Your task to perform on an android device: open app "PlayWell" Image 0: 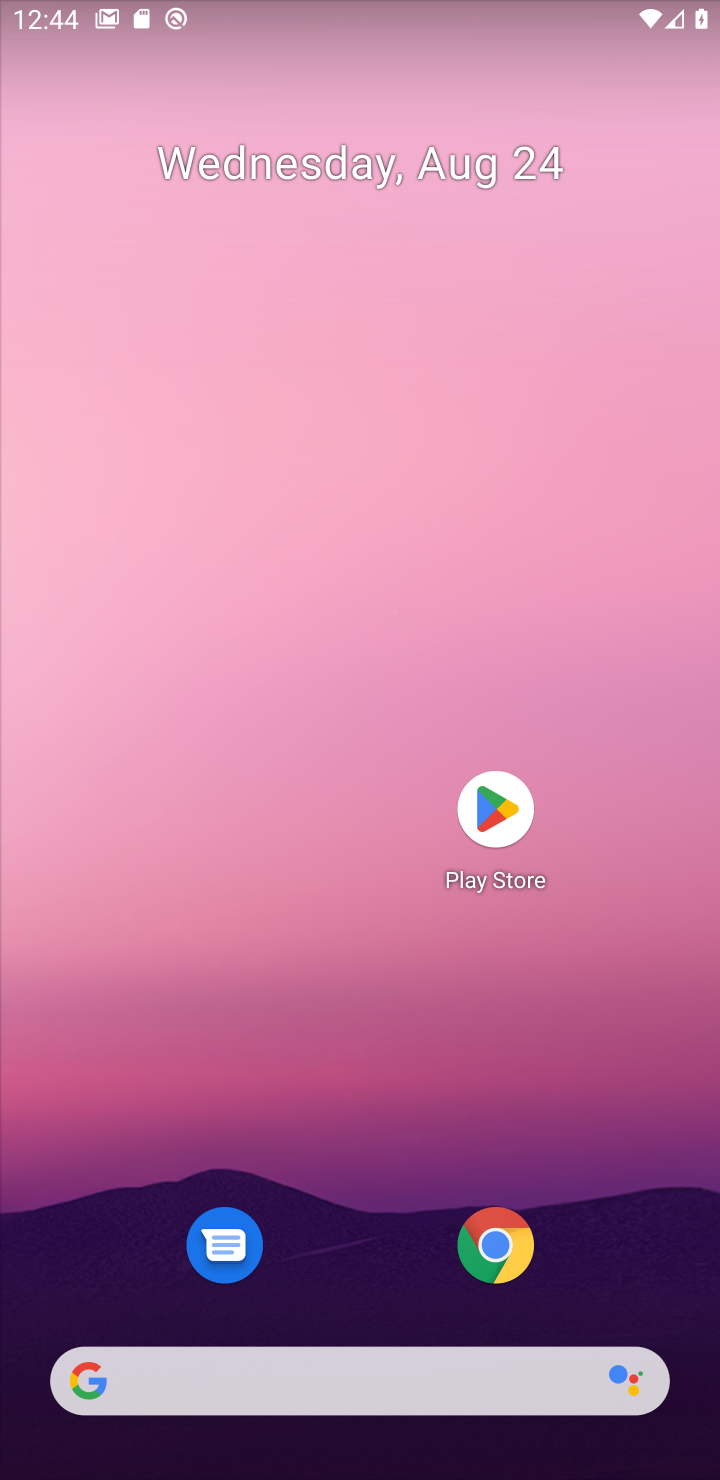
Step 0: click (489, 816)
Your task to perform on an android device: open app "PlayWell" Image 1: 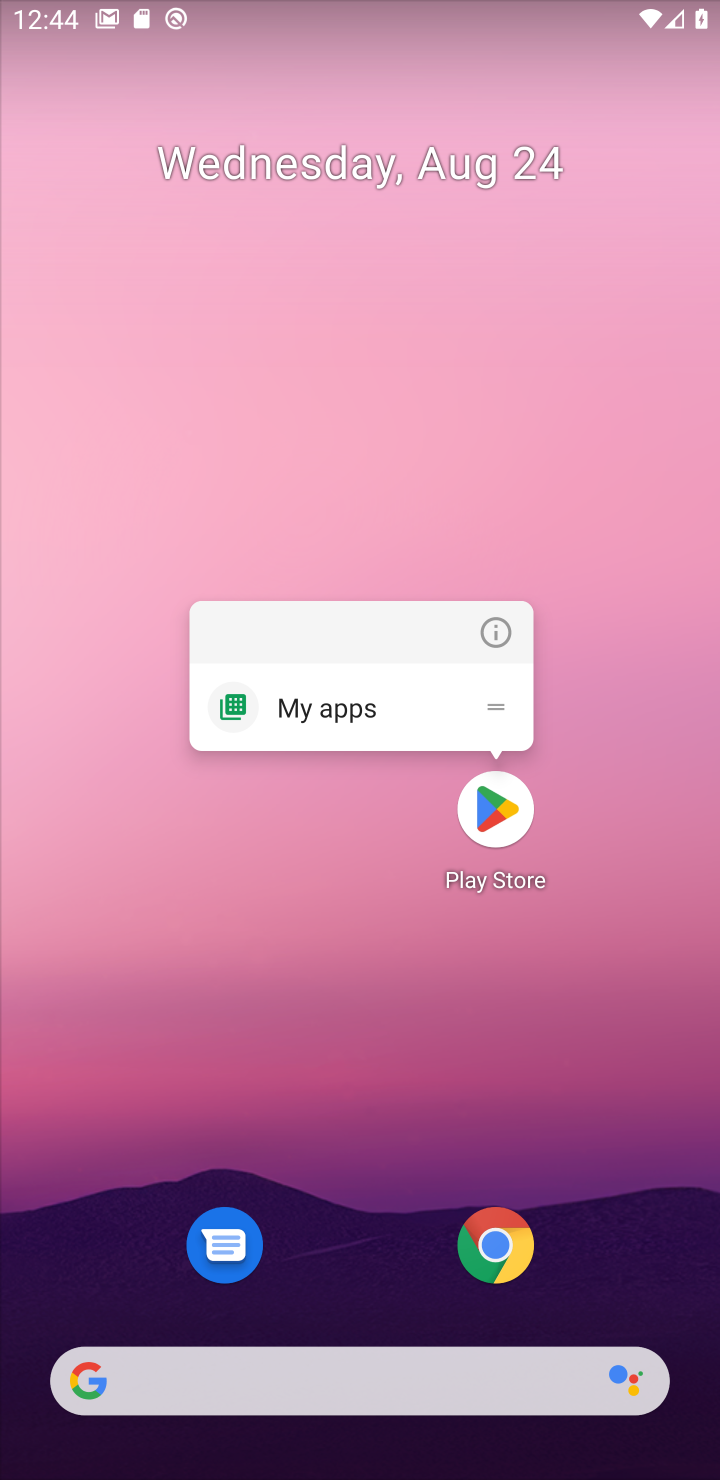
Step 1: click (506, 818)
Your task to perform on an android device: open app "PlayWell" Image 2: 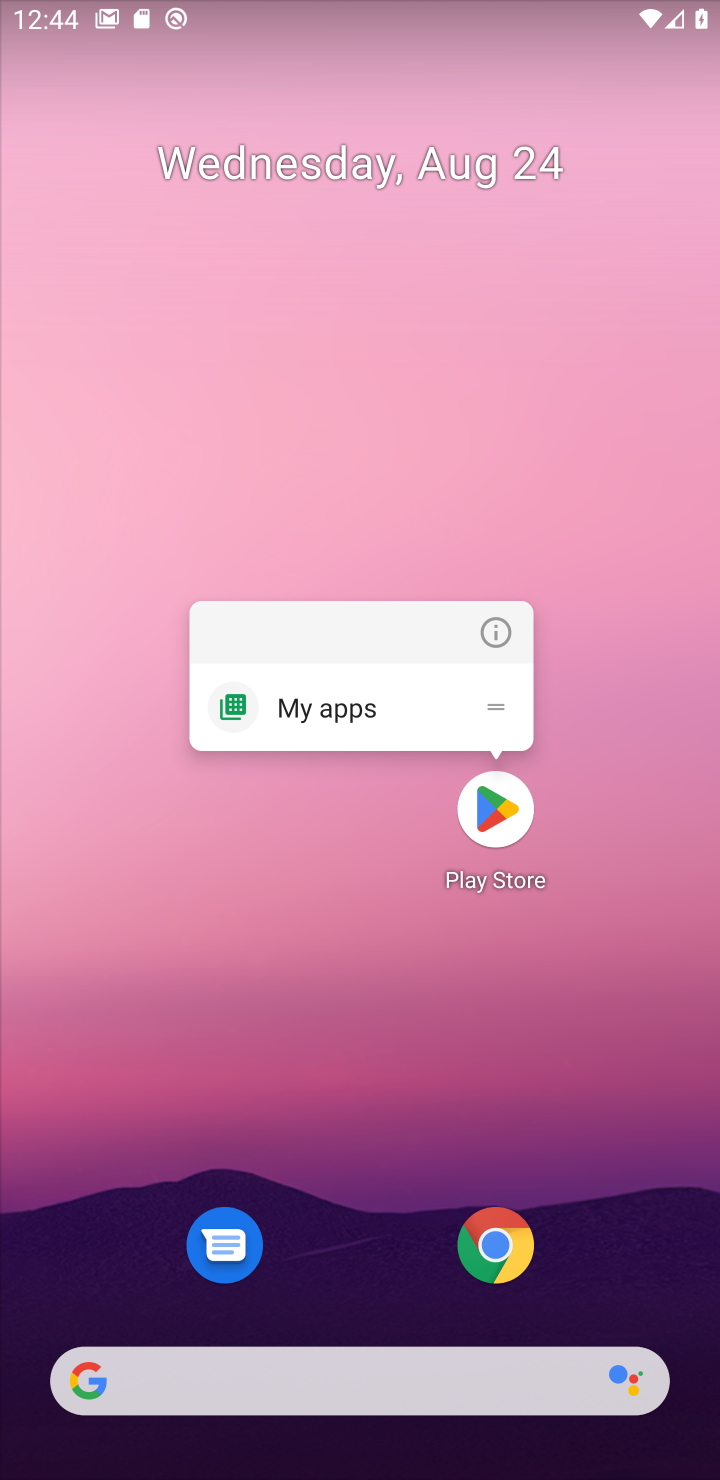
Step 2: click (508, 827)
Your task to perform on an android device: open app "PlayWell" Image 3: 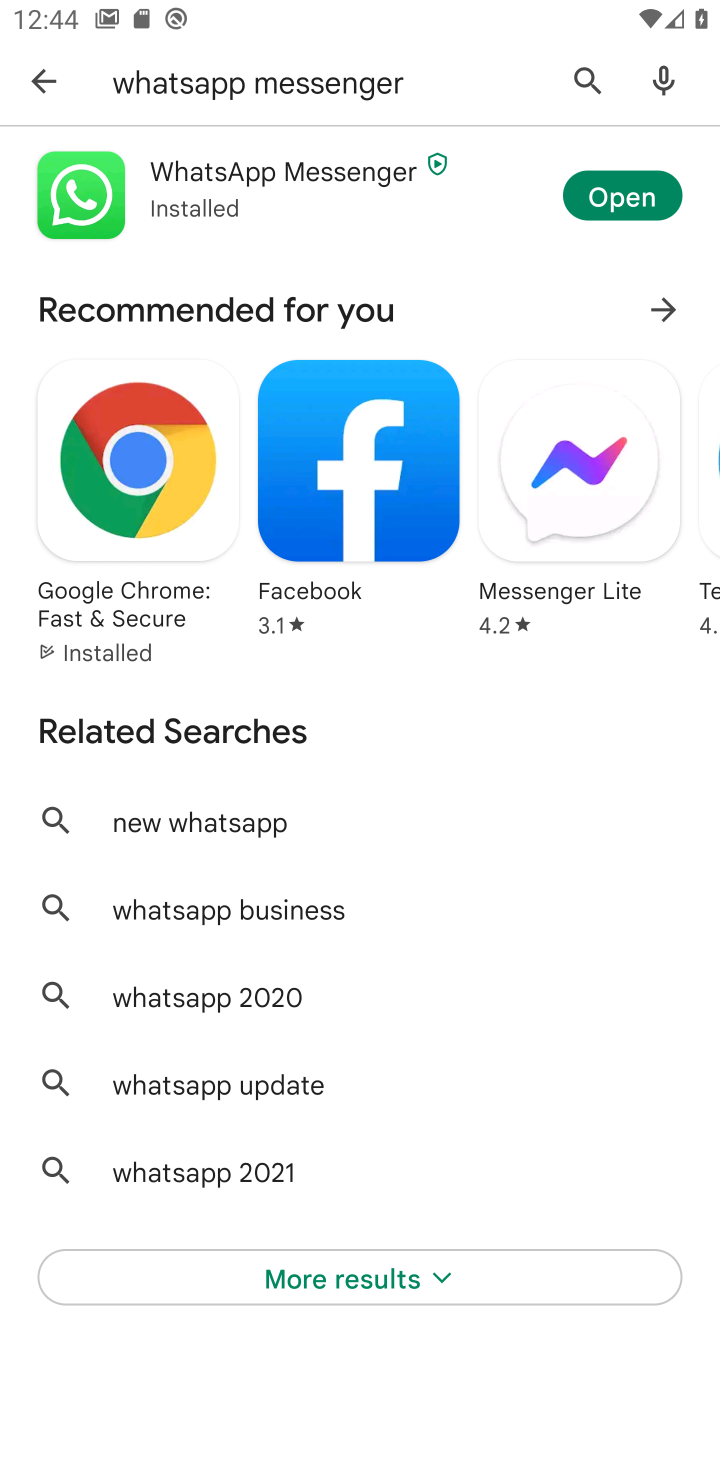
Step 3: click (583, 77)
Your task to perform on an android device: open app "PlayWell" Image 4: 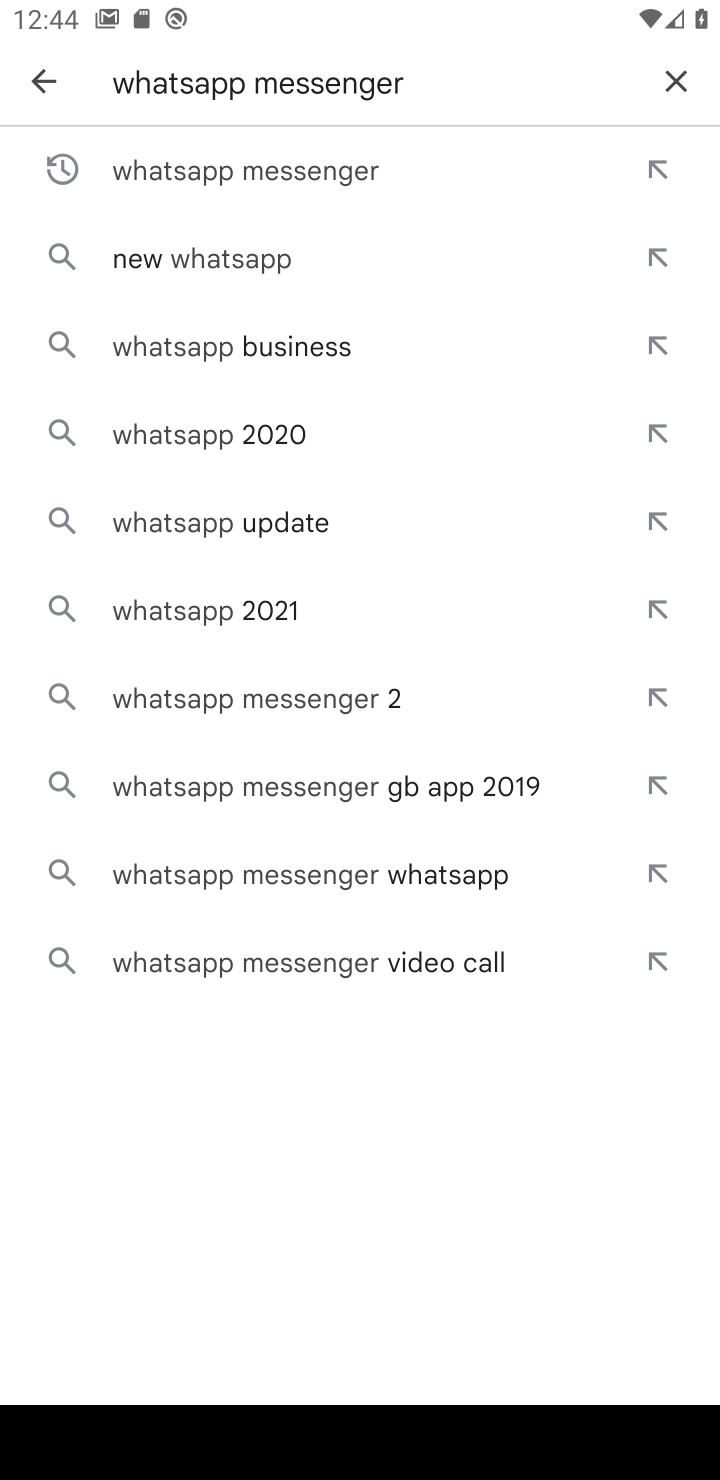
Step 4: click (669, 83)
Your task to perform on an android device: open app "PlayWell" Image 5: 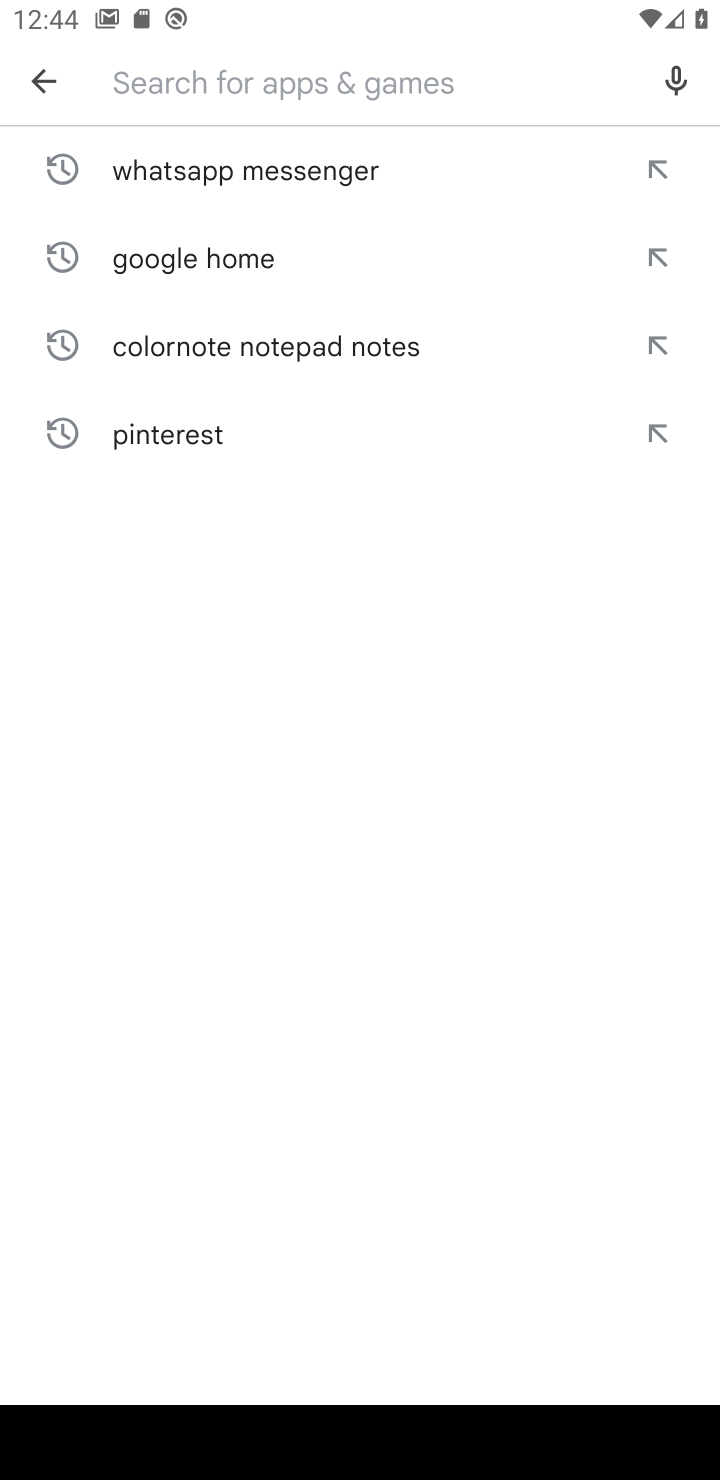
Step 5: type "PlayWell"
Your task to perform on an android device: open app "PlayWell" Image 6: 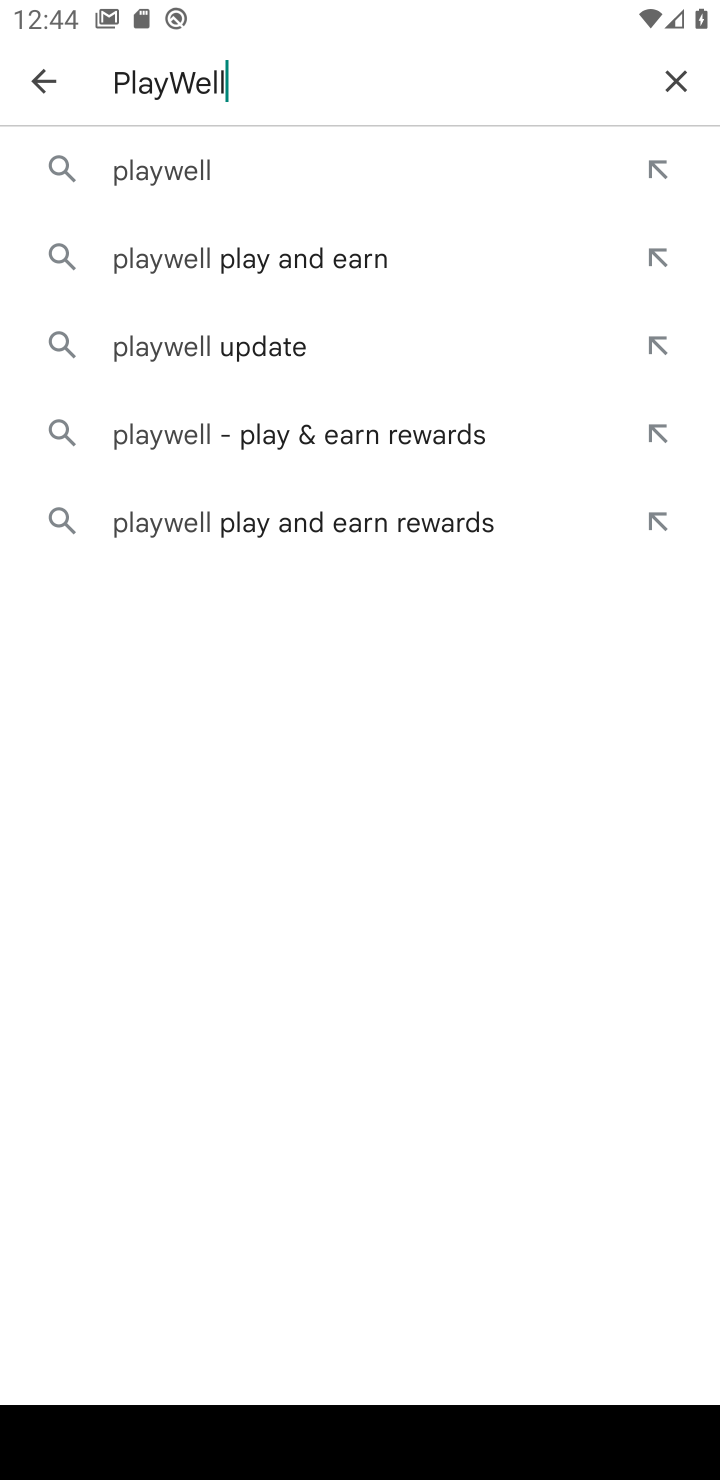
Step 6: click (171, 148)
Your task to perform on an android device: open app "PlayWell" Image 7: 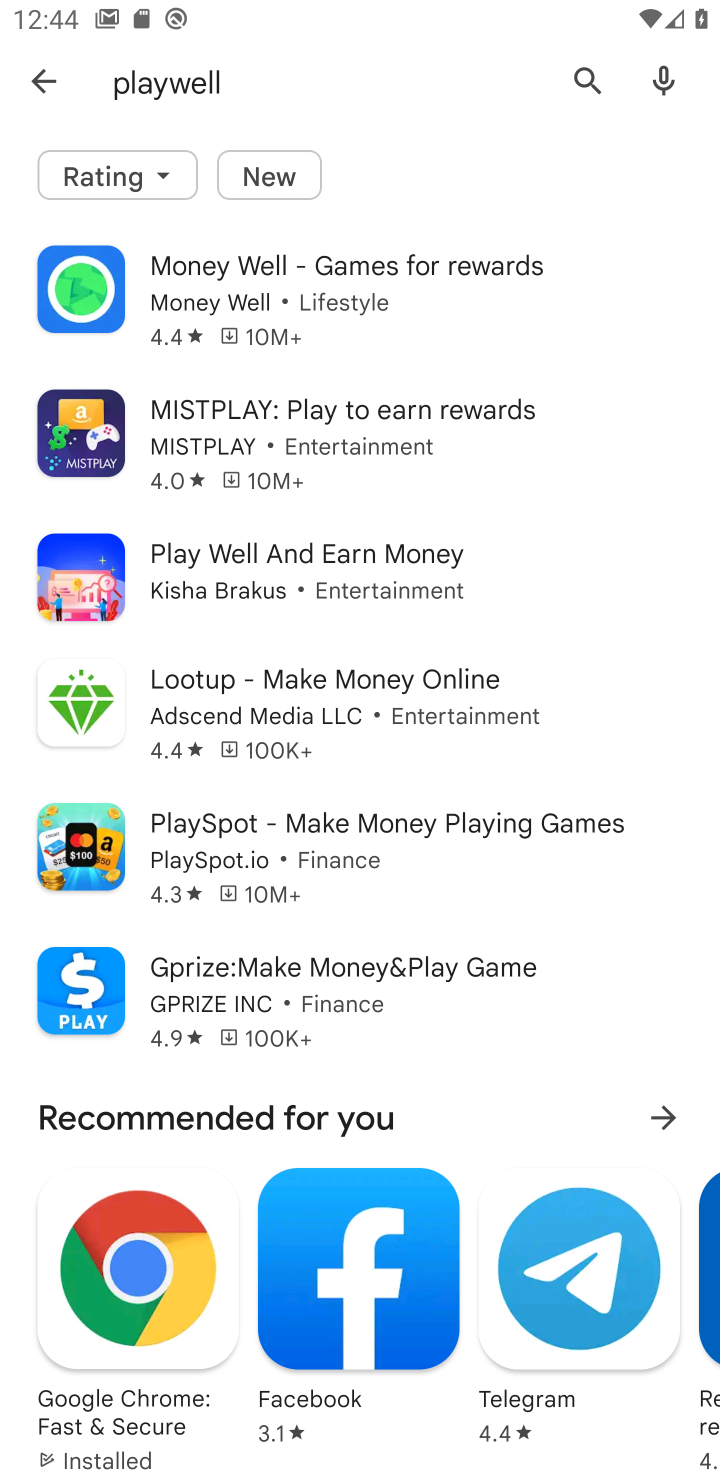
Step 7: task complete